Your task to perform on an android device: Open Reddit.com Image 0: 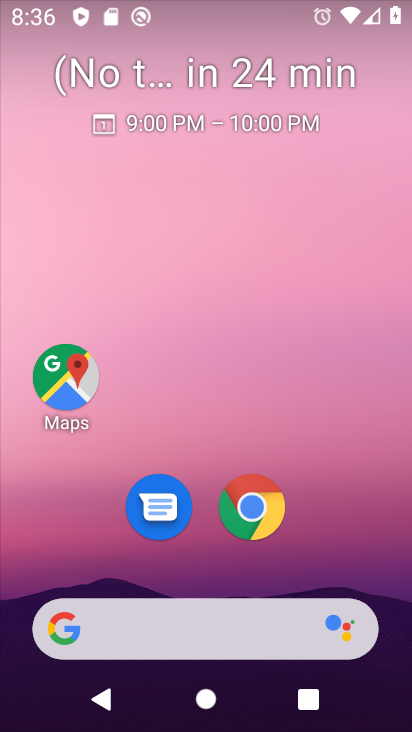
Step 0: click (273, 507)
Your task to perform on an android device: Open Reddit.com Image 1: 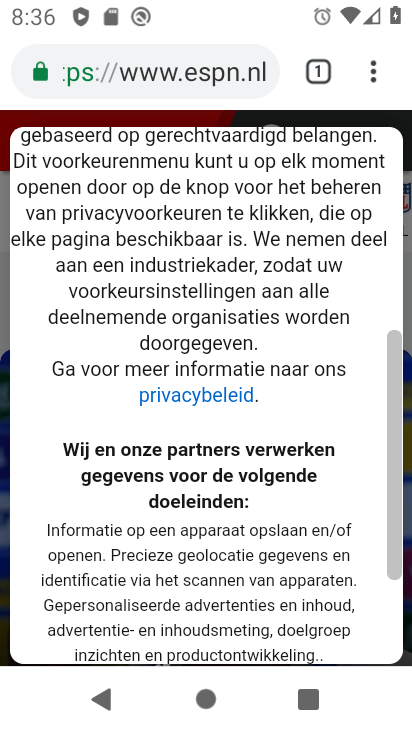
Step 1: click (205, 68)
Your task to perform on an android device: Open Reddit.com Image 2: 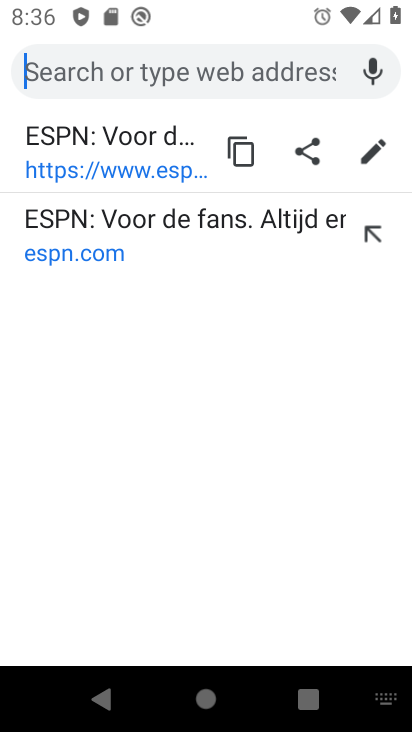
Step 2: type "Reddit.com"
Your task to perform on an android device: Open Reddit.com Image 3: 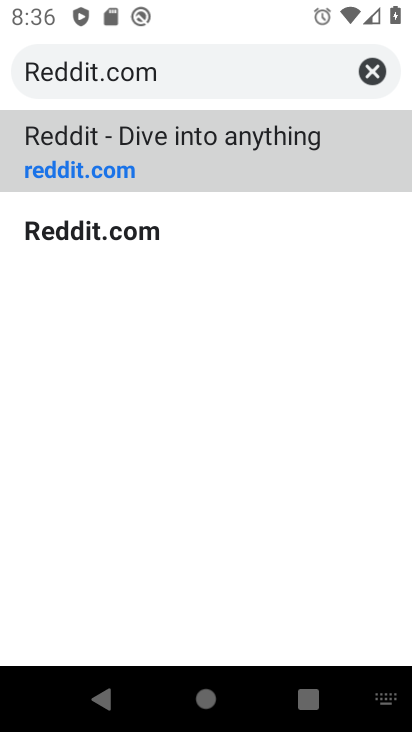
Step 3: click (121, 170)
Your task to perform on an android device: Open Reddit.com Image 4: 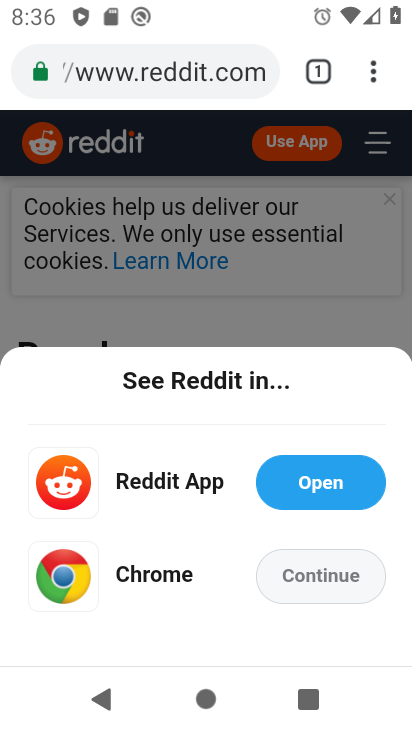
Step 4: task complete